Your task to perform on an android device: toggle location history Image 0: 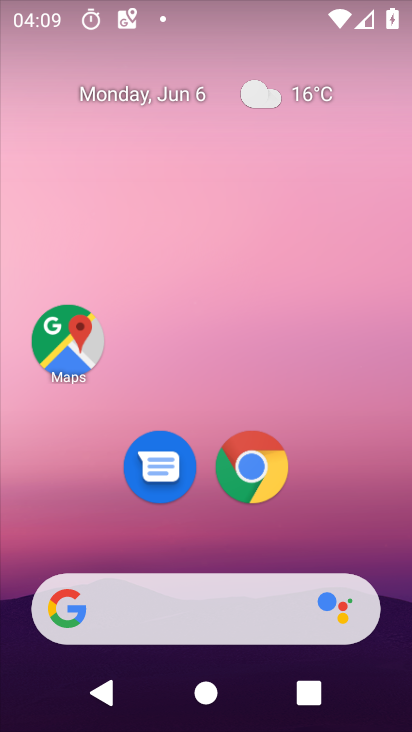
Step 0: drag from (207, 549) to (261, 35)
Your task to perform on an android device: toggle location history Image 1: 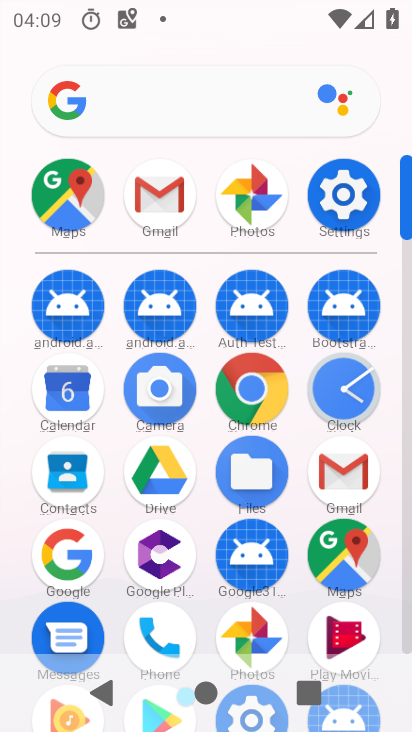
Step 1: click (343, 188)
Your task to perform on an android device: toggle location history Image 2: 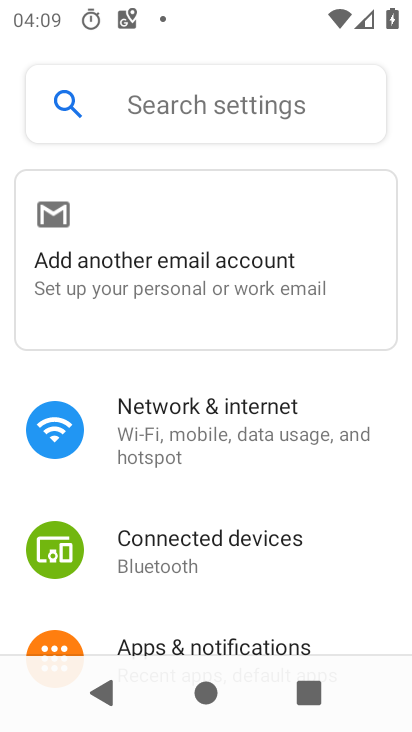
Step 2: drag from (239, 612) to (226, 95)
Your task to perform on an android device: toggle location history Image 3: 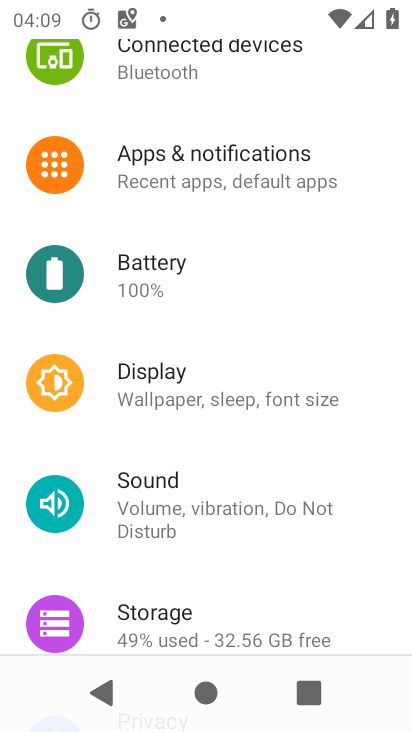
Step 3: drag from (252, 616) to (270, 64)
Your task to perform on an android device: toggle location history Image 4: 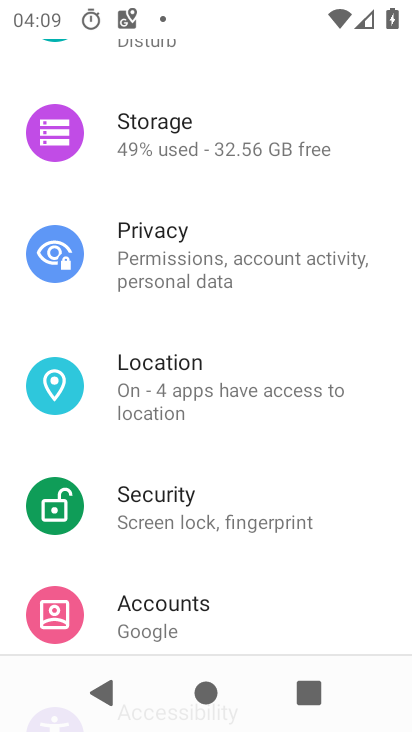
Step 4: click (216, 370)
Your task to perform on an android device: toggle location history Image 5: 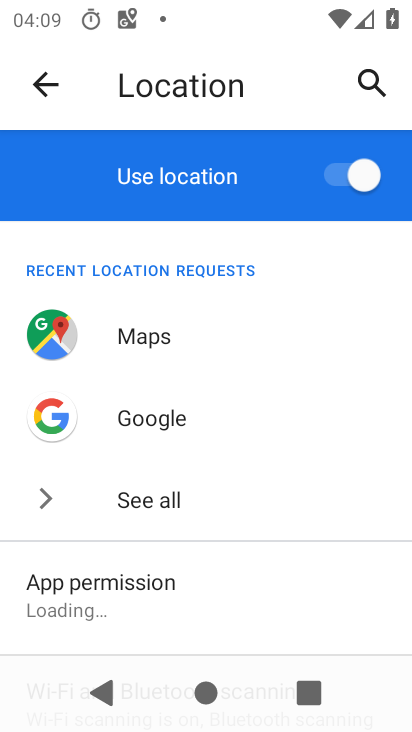
Step 5: drag from (205, 546) to (247, 231)
Your task to perform on an android device: toggle location history Image 6: 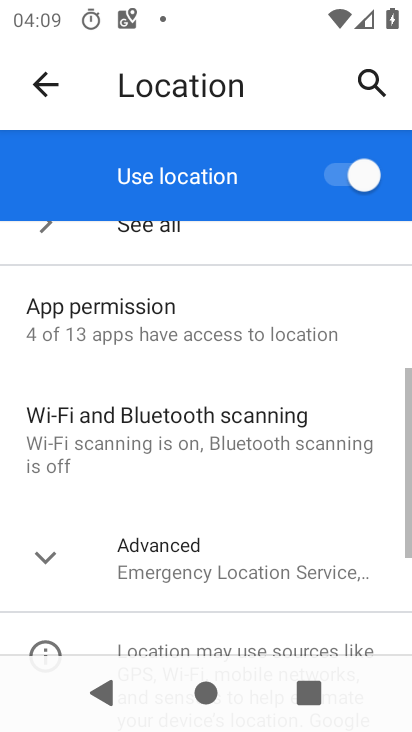
Step 6: click (43, 553)
Your task to perform on an android device: toggle location history Image 7: 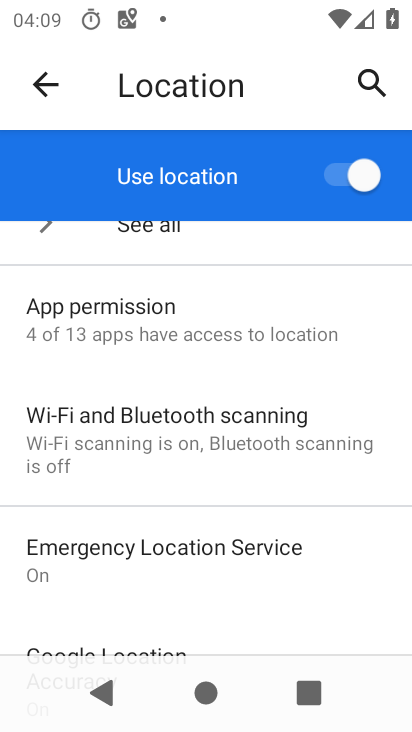
Step 7: drag from (206, 602) to (243, 276)
Your task to perform on an android device: toggle location history Image 8: 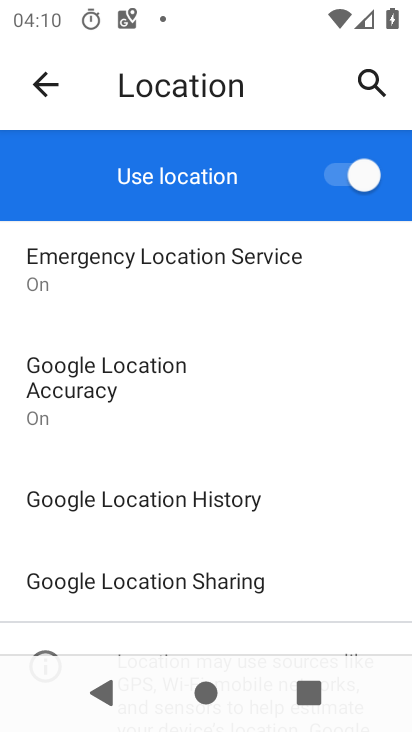
Step 8: click (271, 496)
Your task to perform on an android device: toggle location history Image 9: 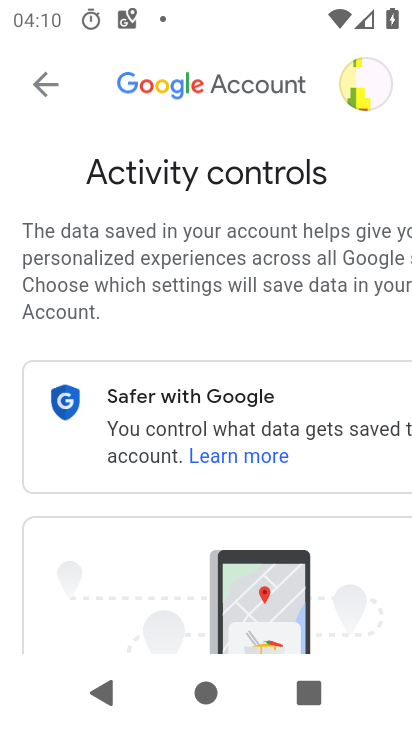
Step 9: drag from (269, 532) to (269, 120)
Your task to perform on an android device: toggle location history Image 10: 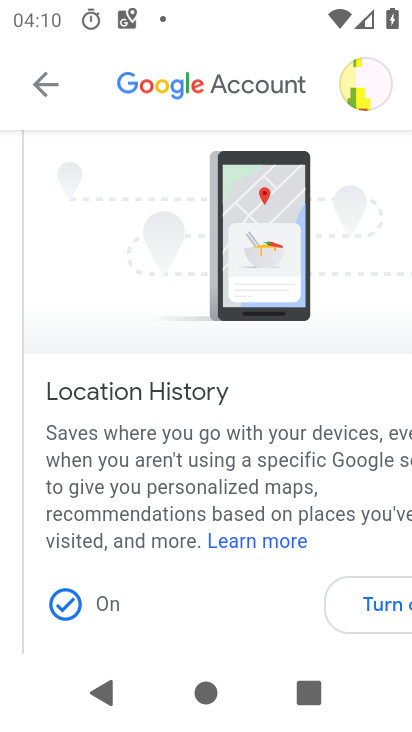
Step 10: click (363, 606)
Your task to perform on an android device: toggle location history Image 11: 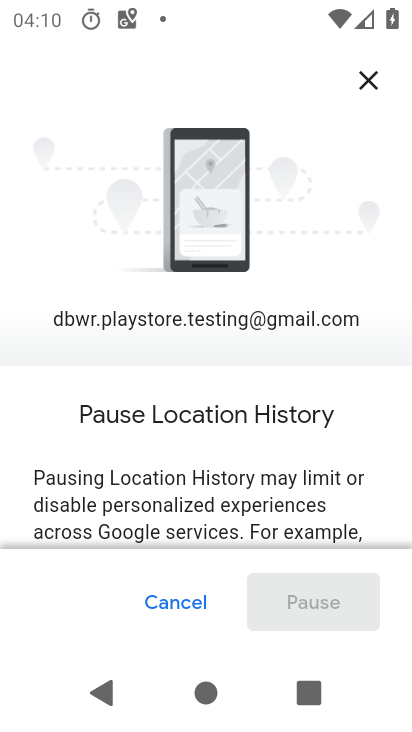
Step 11: drag from (291, 509) to (335, 138)
Your task to perform on an android device: toggle location history Image 12: 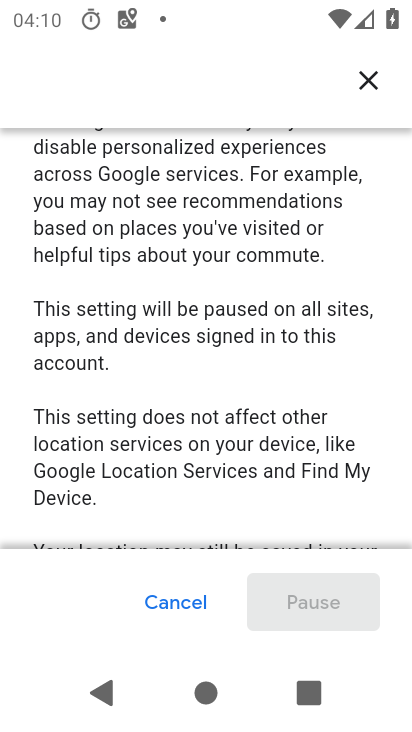
Step 12: drag from (259, 500) to (278, 125)
Your task to perform on an android device: toggle location history Image 13: 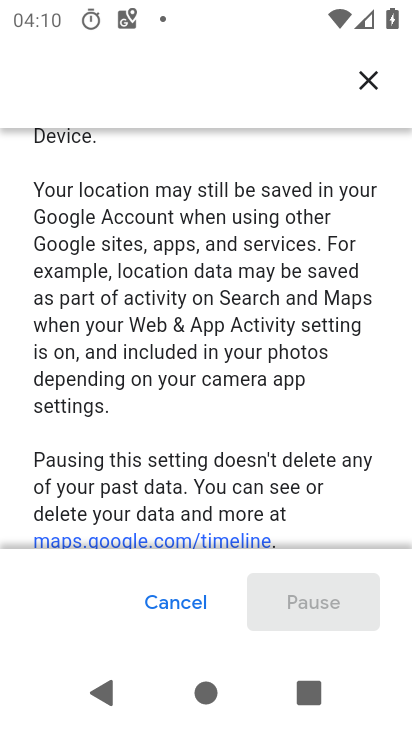
Step 13: click (301, 96)
Your task to perform on an android device: toggle location history Image 14: 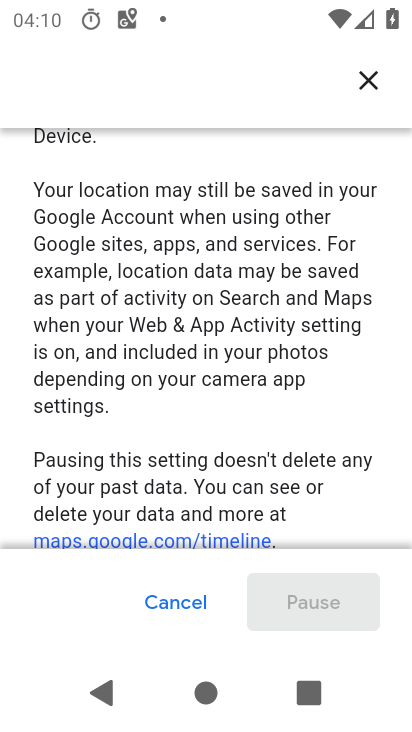
Step 14: drag from (264, 489) to (256, 129)
Your task to perform on an android device: toggle location history Image 15: 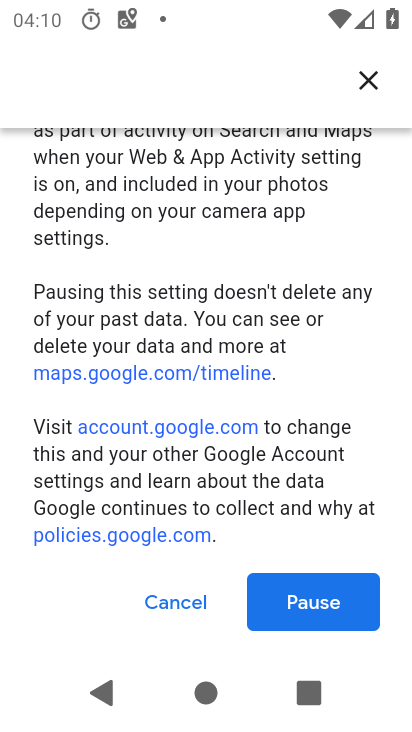
Step 15: click (310, 600)
Your task to perform on an android device: toggle location history Image 16: 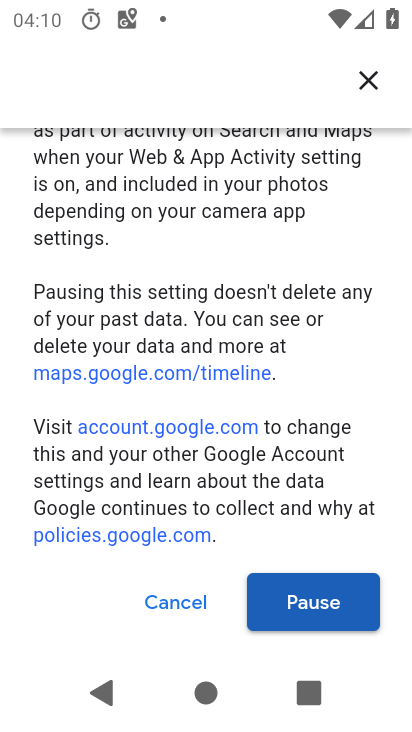
Step 16: click (313, 594)
Your task to perform on an android device: toggle location history Image 17: 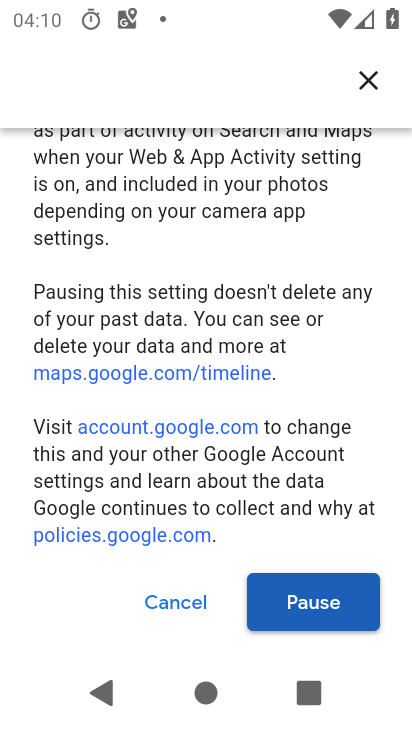
Step 17: click (313, 598)
Your task to perform on an android device: toggle location history Image 18: 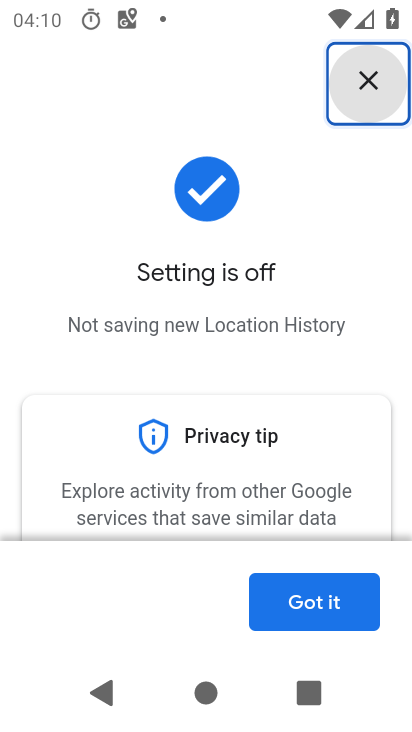
Step 18: click (305, 605)
Your task to perform on an android device: toggle location history Image 19: 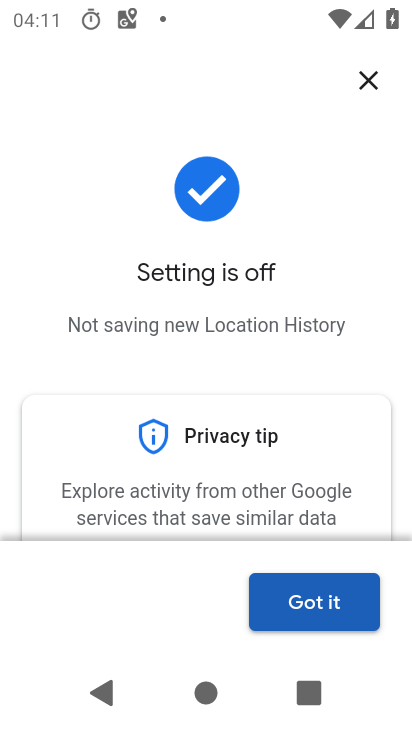
Step 19: task complete